Your task to perform on an android device: Open the map Image 0: 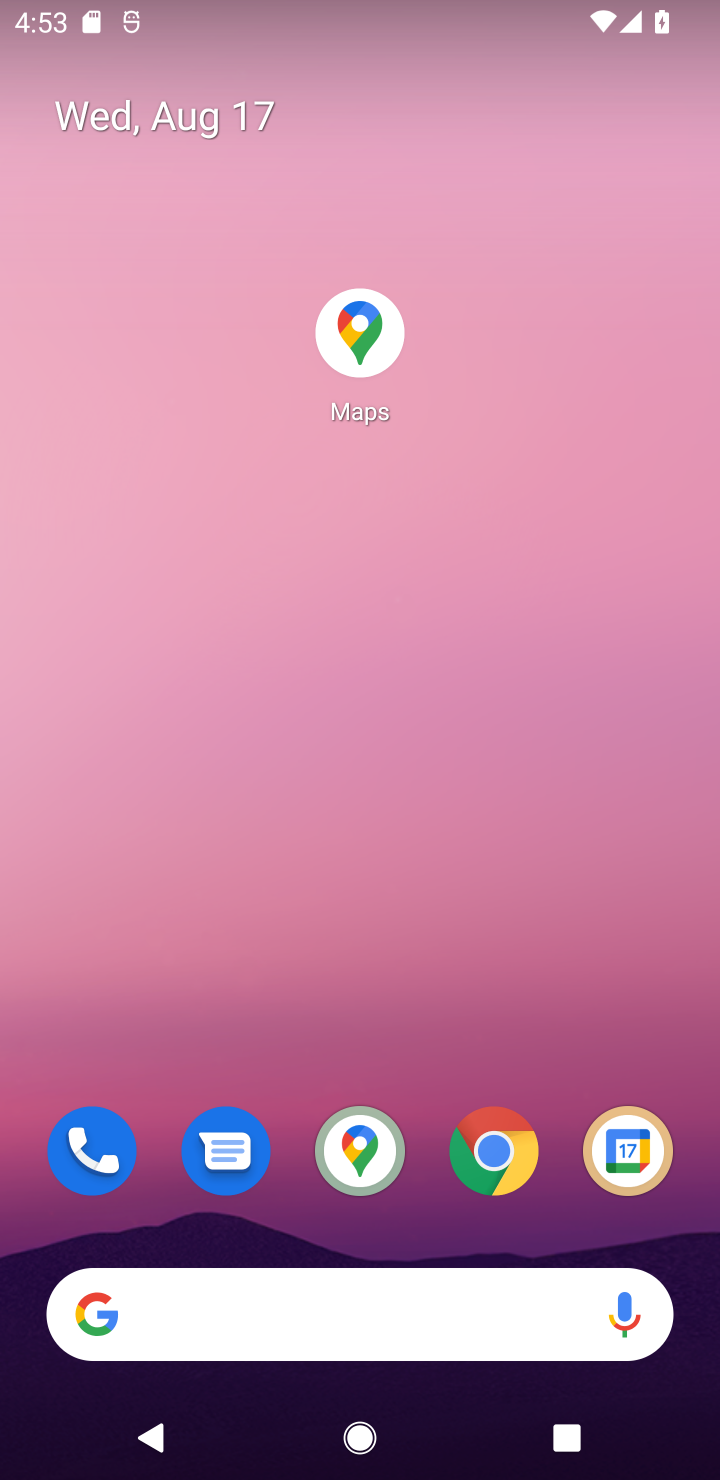
Step 0: drag from (294, 1188) to (406, 264)
Your task to perform on an android device: Open the map Image 1: 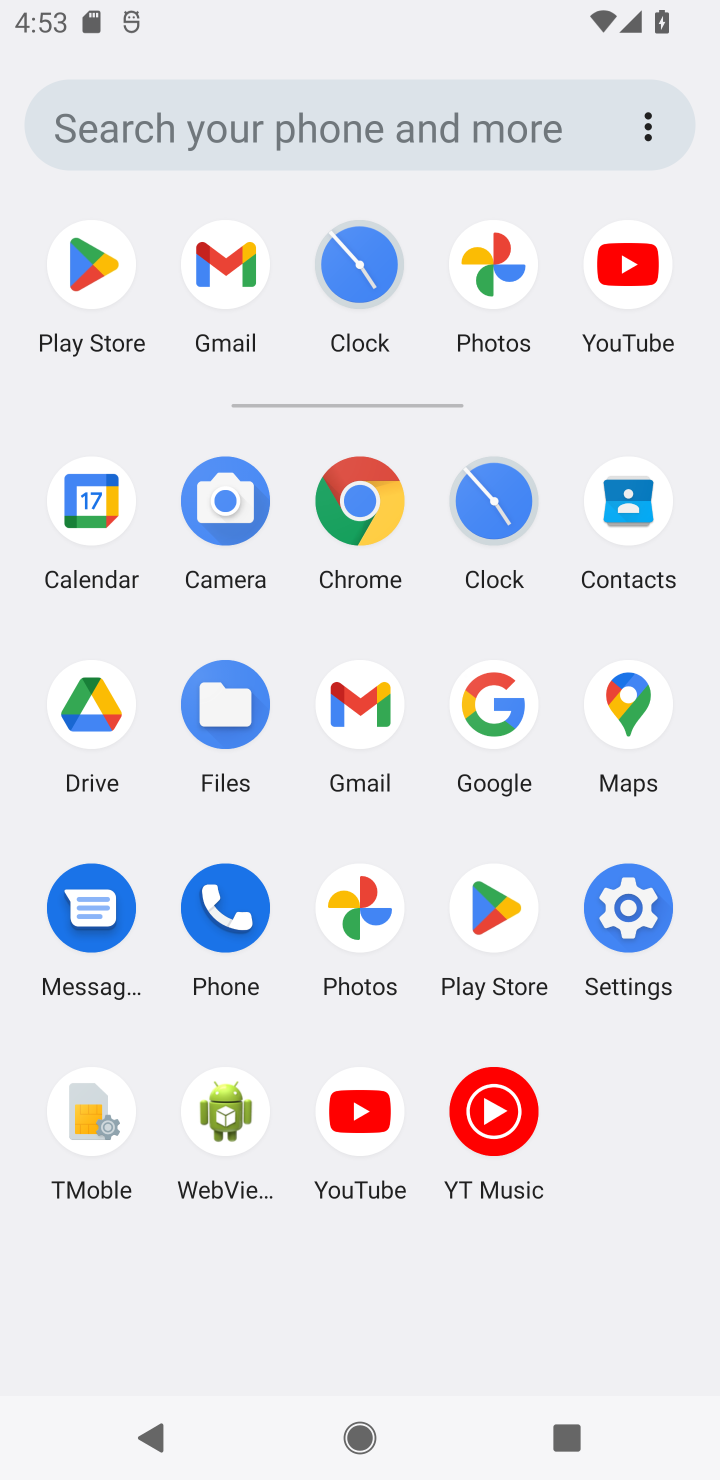
Step 1: click (635, 678)
Your task to perform on an android device: Open the map Image 2: 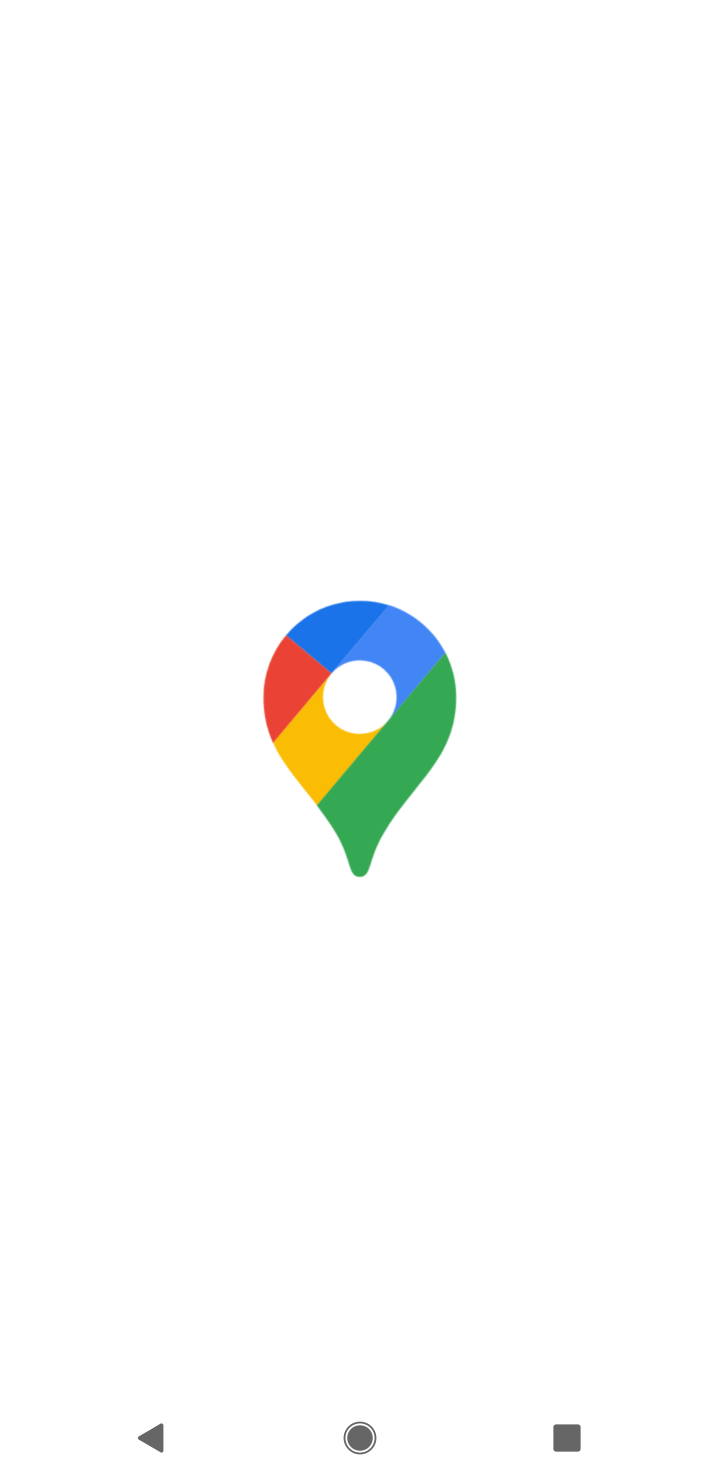
Step 2: task complete